Your task to perform on an android device: Open the calendar and show me this week's events Image 0: 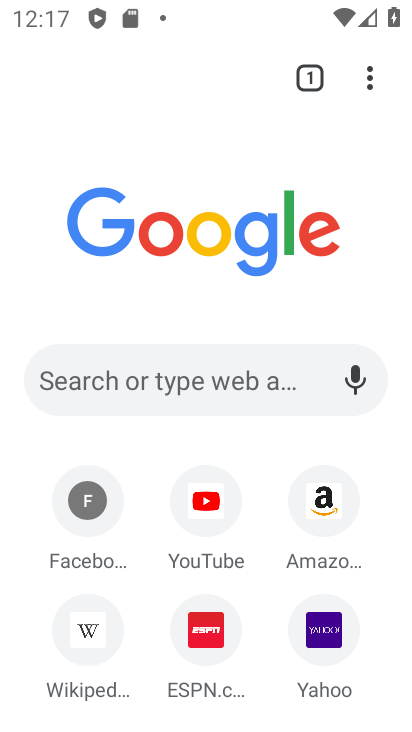
Step 0: press home button
Your task to perform on an android device: Open the calendar and show me this week's events Image 1: 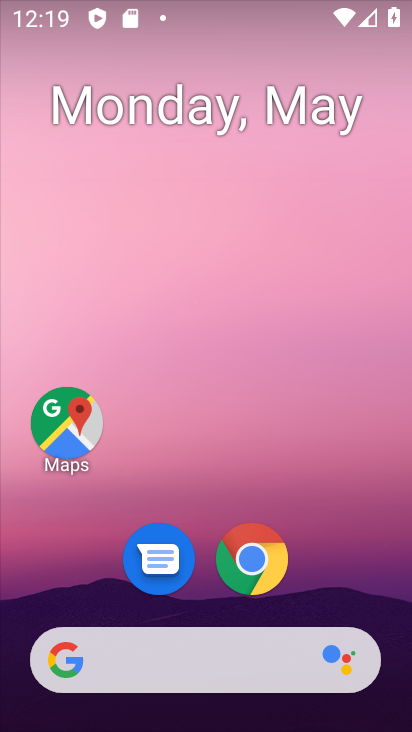
Step 1: drag from (184, 704) to (150, 16)
Your task to perform on an android device: Open the calendar and show me this week's events Image 2: 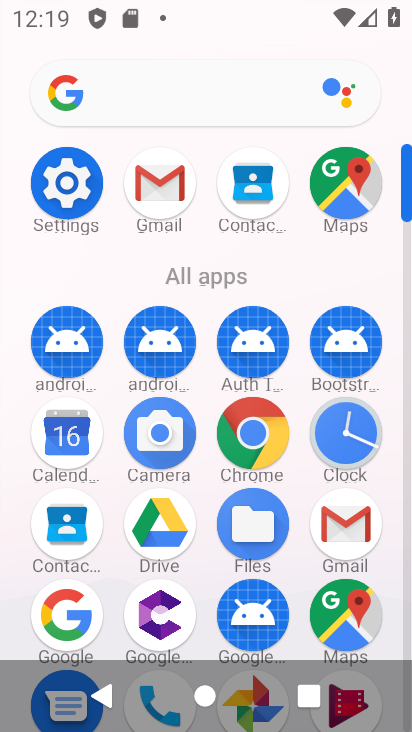
Step 2: click (65, 434)
Your task to perform on an android device: Open the calendar and show me this week's events Image 3: 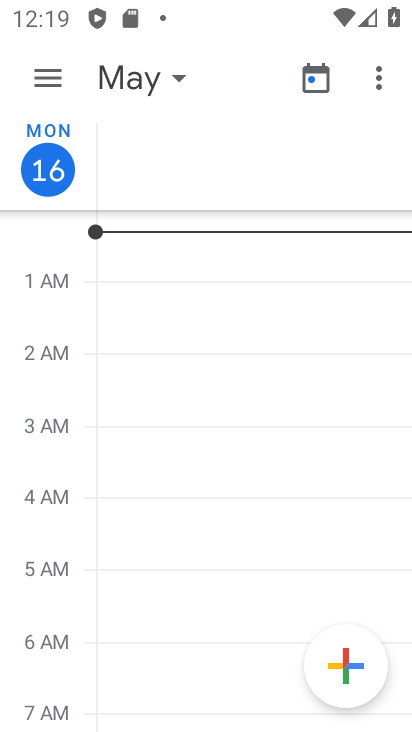
Step 3: click (140, 81)
Your task to perform on an android device: Open the calendar and show me this week's events Image 4: 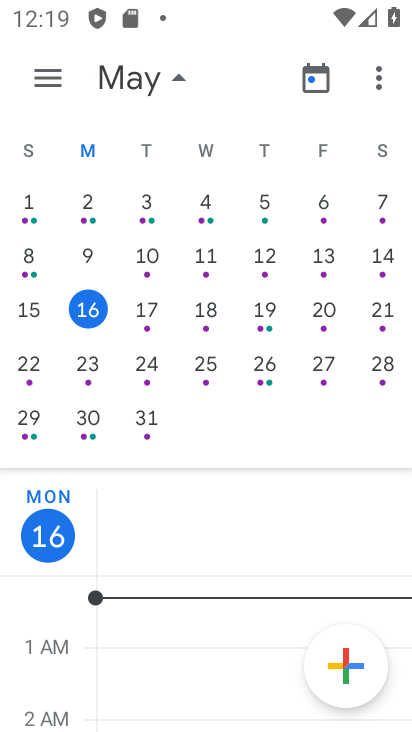
Step 4: click (84, 317)
Your task to perform on an android device: Open the calendar and show me this week's events Image 5: 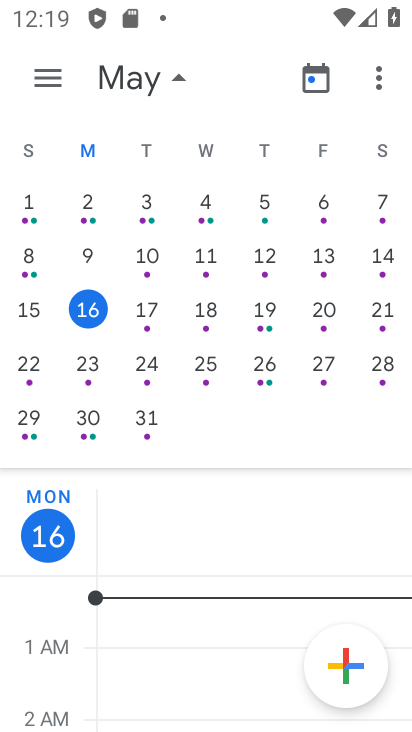
Step 5: drag from (225, 629) to (306, 130)
Your task to perform on an android device: Open the calendar and show me this week's events Image 6: 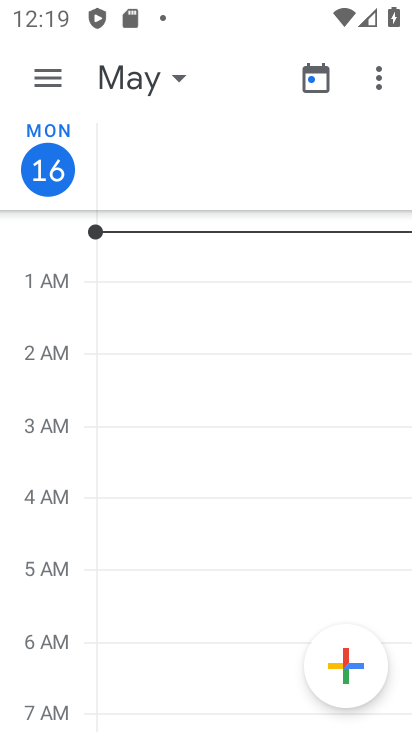
Step 6: click (49, 76)
Your task to perform on an android device: Open the calendar and show me this week's events Image 7: 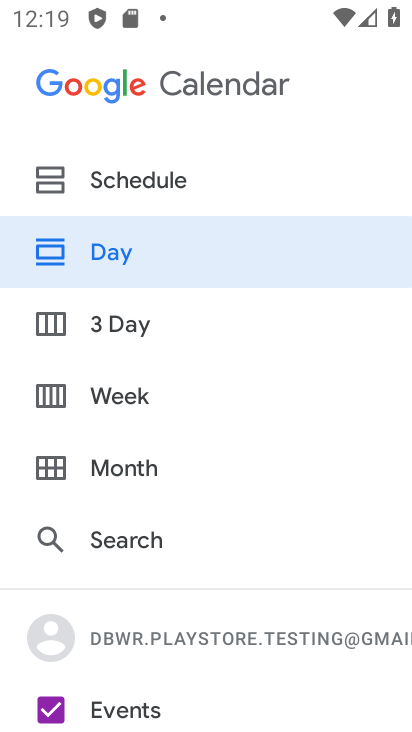
Step 7: click (123, 188)
Your task to perform on an android device: Open the calendar and show me this week's events Image 8: 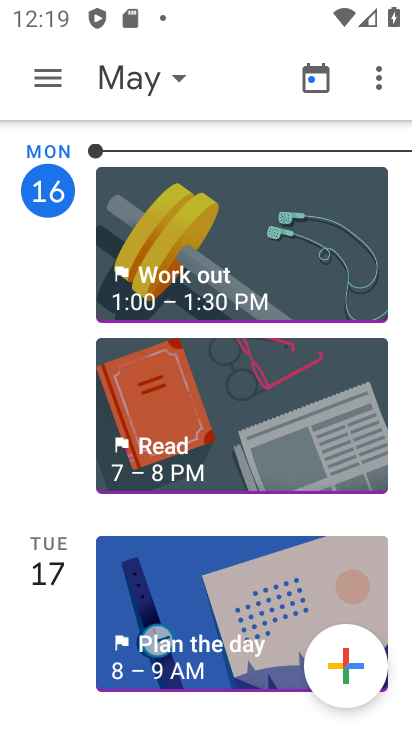
Step 8: task complete